Your task to perform on an android device: toggle translation in the chrome app Image 0: 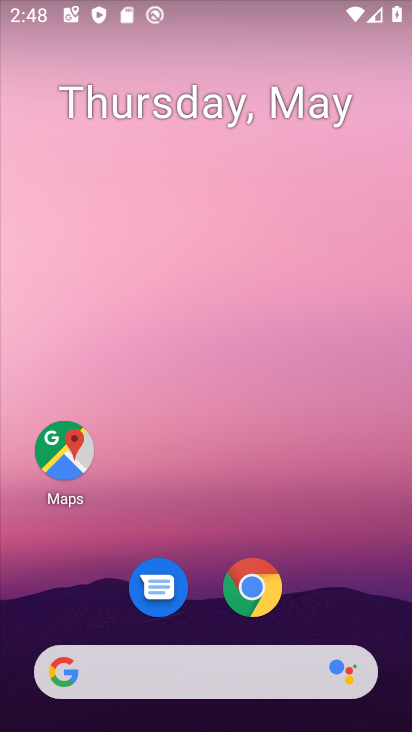
Step 0: click (255, 589)
Your task to perform on an android device: toggle translation in the chrome app Image 1: 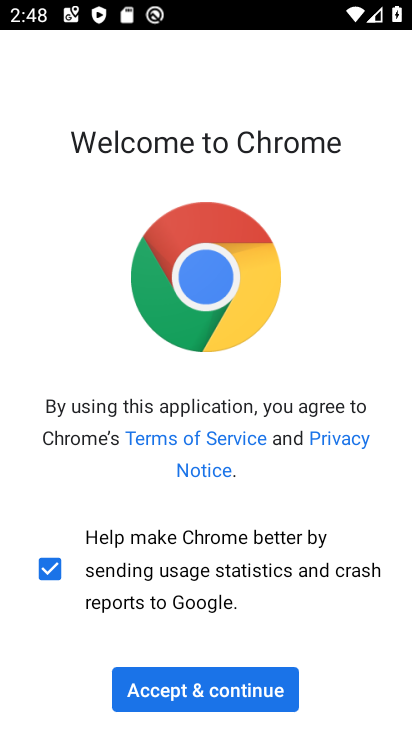
Step 1: click (245, 699)
Your task to perform on an android device: toggle translation in the chrome app Image 2: 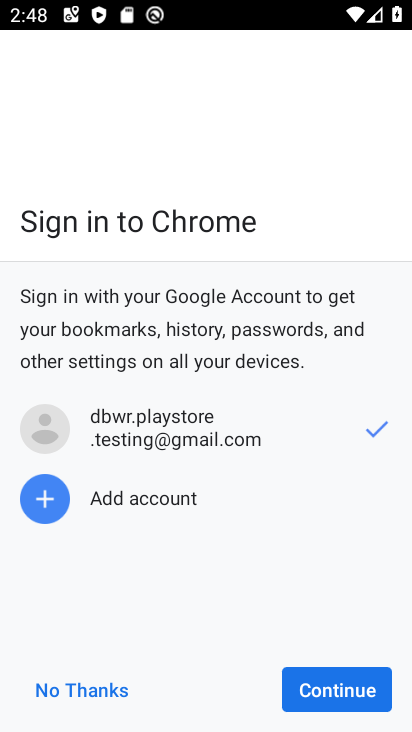
Step 2: click (299, 692)
Your task to perform on an android device: toggle translation in the chrome app Image 3: 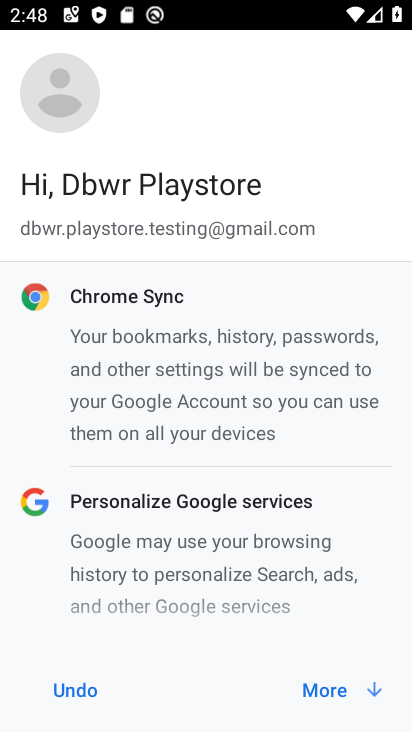
Step 3: click (317, 692)
Your task to perform on an android device: toggle translation in the chrome app Image 4: 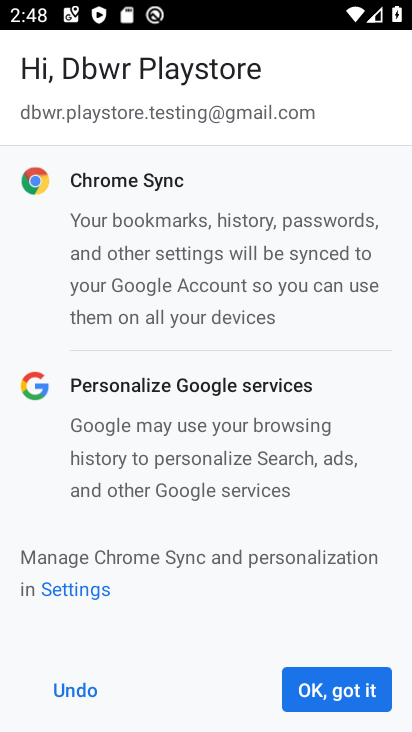
Step 4: click (317, 692)
Your task to perform on an android device: toggle translation in the chrome app Image 5: 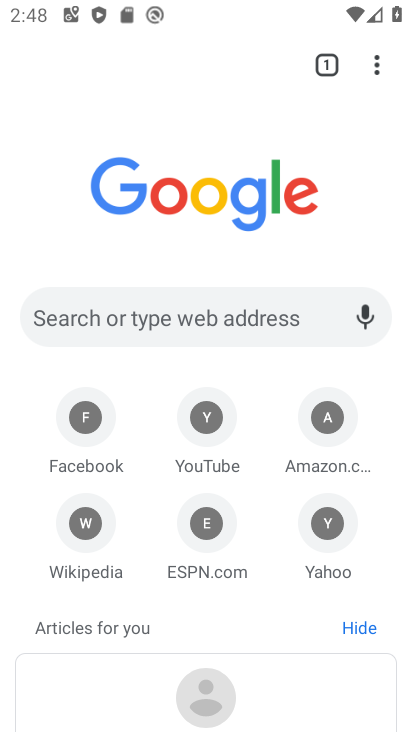
Step 5: click (387, 77)
Your task to perform on an android device: toggle translation in the chrome app Image 6: 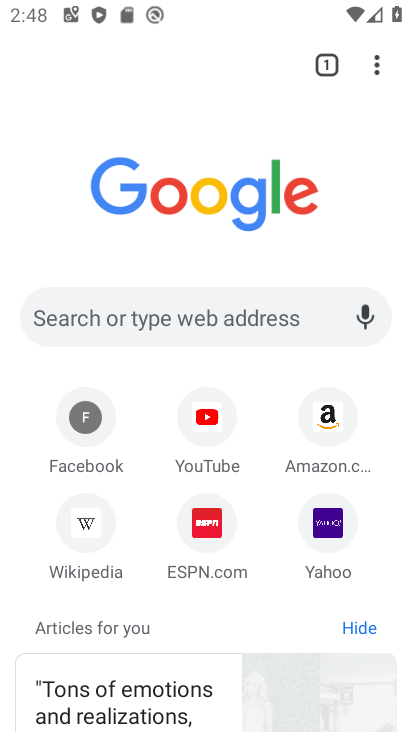
Step 6: click (385, 78)
Your task to perform on an android device: toggle translation in the chrome app Image 7: 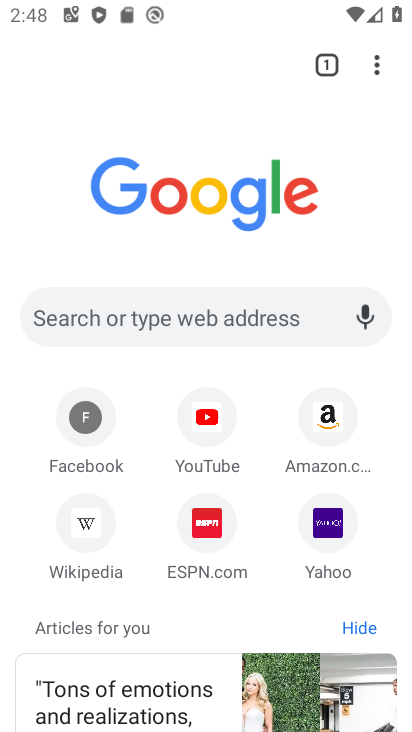
Step 7: click (373, 57)
Your task to perform on an android device: toggle translation in the chrome app Image 8: 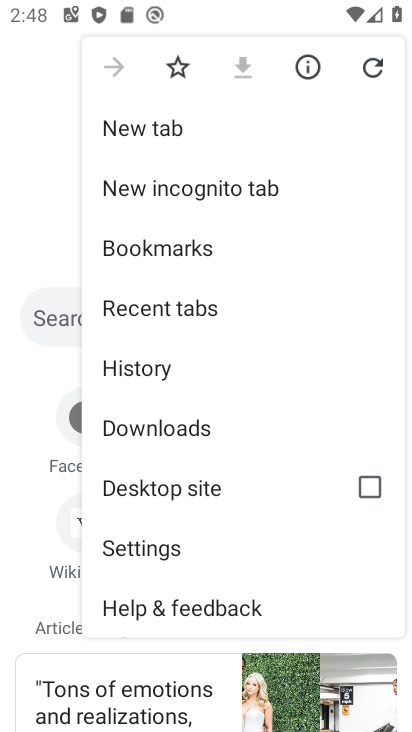
Step 8: click (164, 553)
Your task to perform on an android device: toggle translation in the chrome app Image 9: 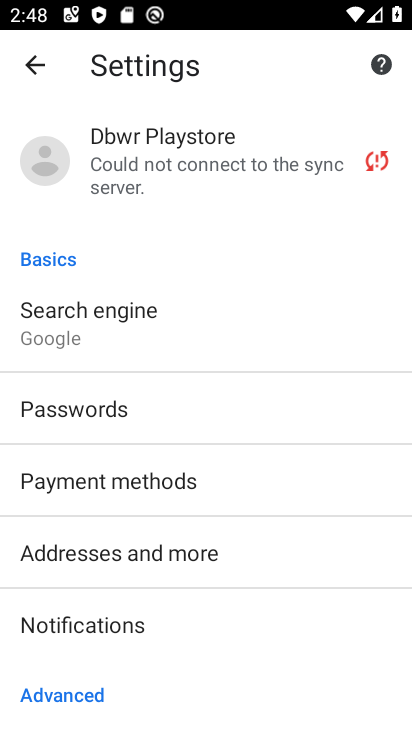
Step 9: drag from (201, 684) to (131, 197)
Your task to perform on an android device: toggle translation in the chrome app Image 10: 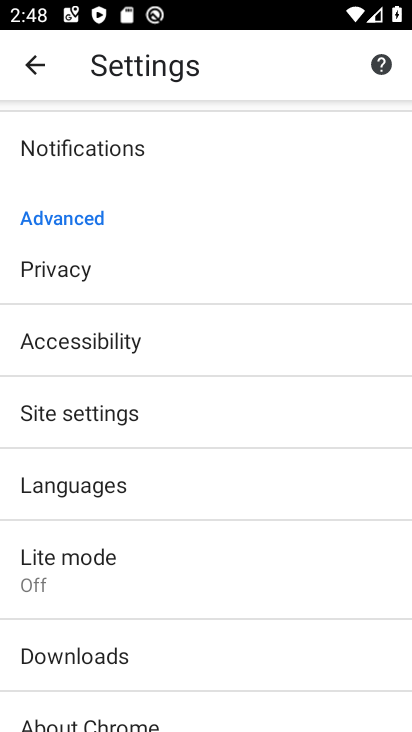
Step 10: drag from (114, 670) to (105, 362)
Your task to perform on an android device: toggle translation in the chrome app Image 11: 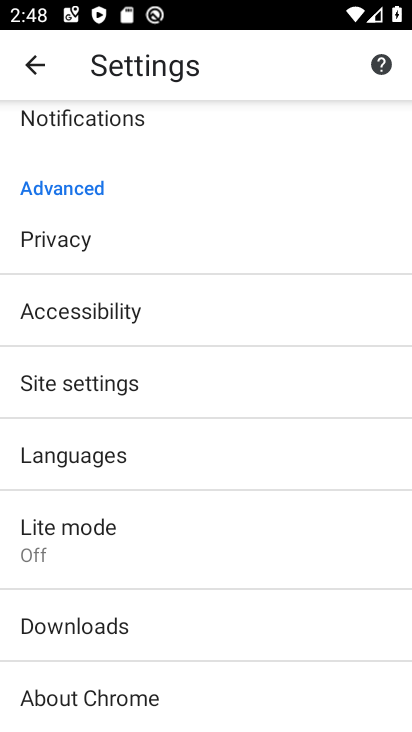
Step 11: click (95, 462)
Your task to perform on an android device: toggle translation in the chrome app Image 12: 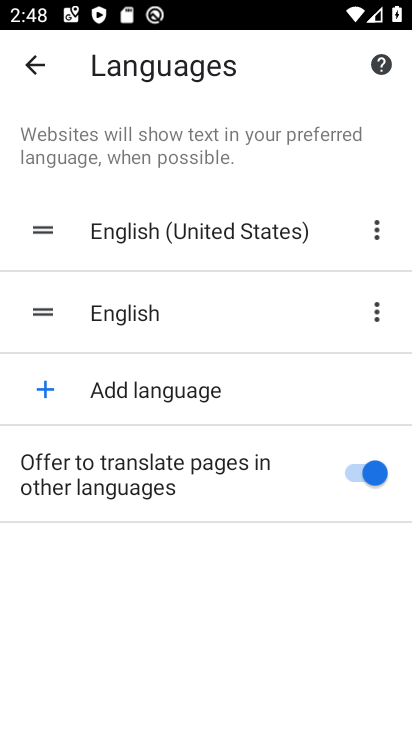
Step 12: click (347, 475)
Your task to perform on an android device: toggle translation in the chrome app Image 13: 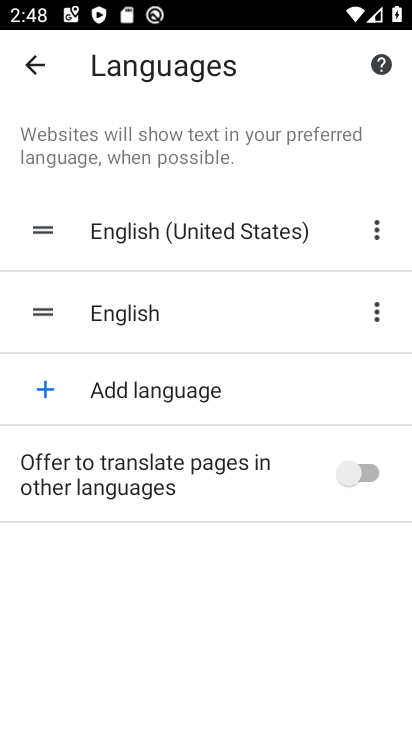
Step 13: task complete